Your task to perform on an android device: choose inbox layout in the gmail app Image 0: 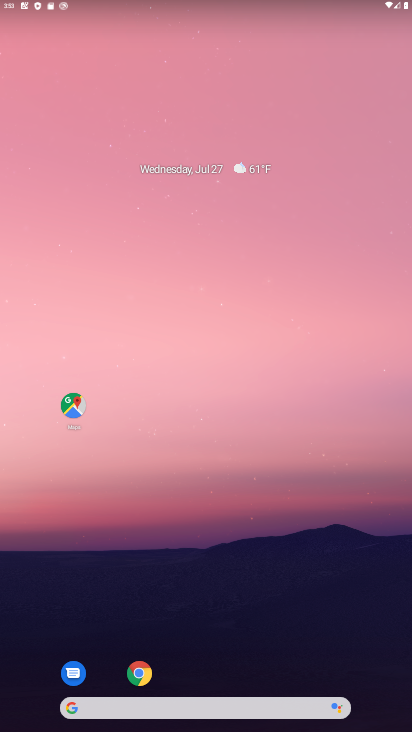
Step 0: drag from (291, 573) to (212, 107)
Your task to perform on an android device: choose inbox layout in the gmail app Image 1: 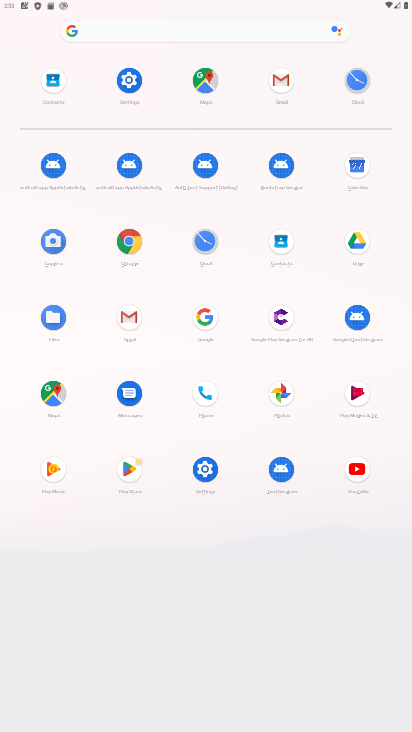
Step 1: click (120, 323)
Your task to perform on an android device: choose inbox layout in the gmail app Image 2: 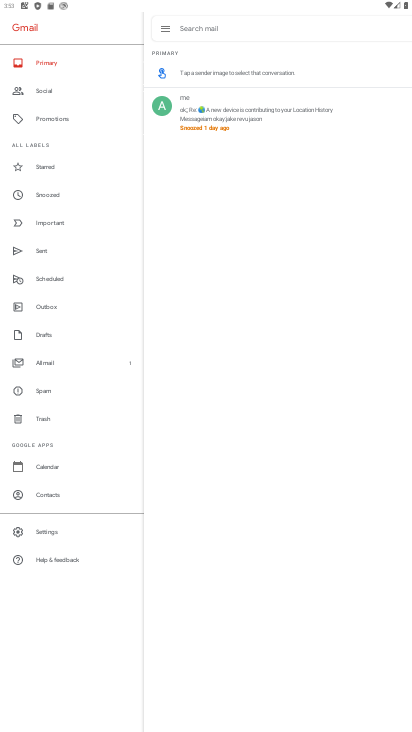
Step 2: click (72, 529)
Your task to perform on an android device: choose inbox layout in the gmail app Image 3: 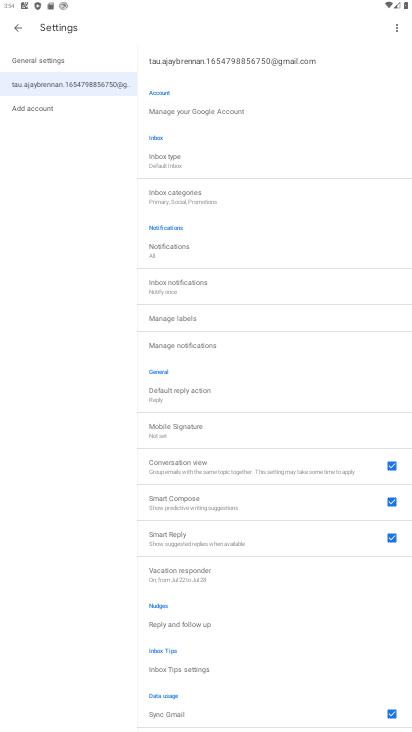
Step 3: click (176, 154)
Your task to perform on an android device: choose inbox layout in the gmail app Image 4: 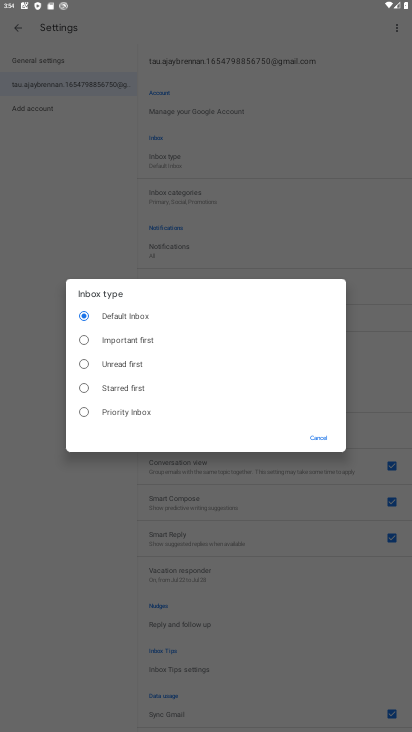
Step 4: click (87, 389)
Your task to perform on an android device: choose inbox layout in the gmail app Image 5: 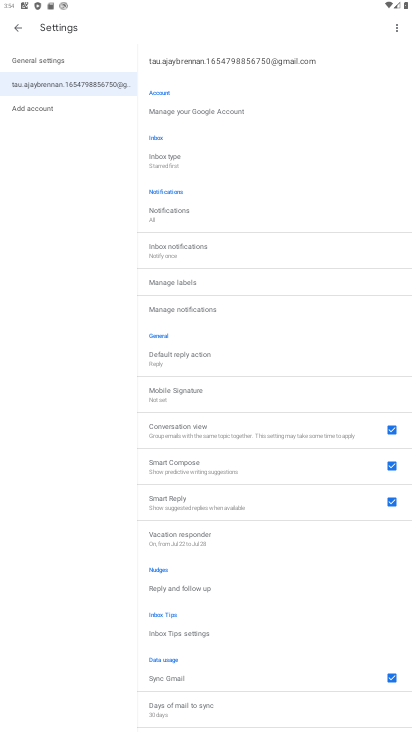
Step 5: task complete